Your task to perform on an android device: delete the emails in spam in the gmail app Image 0: 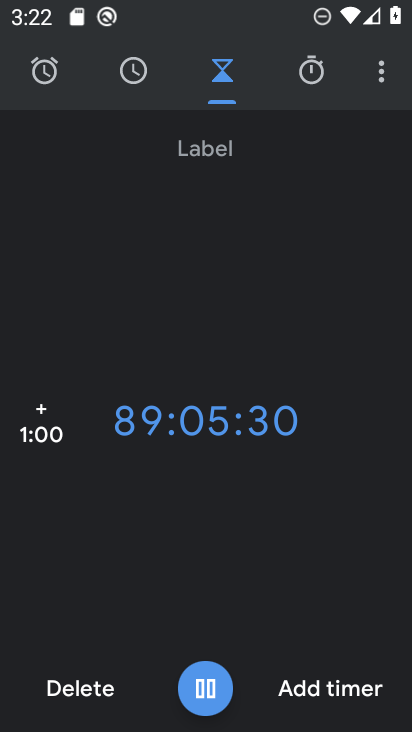
Step 0: press home button
Your task to perform on an android device: delete the emails in spam in the gmail app Image 1: 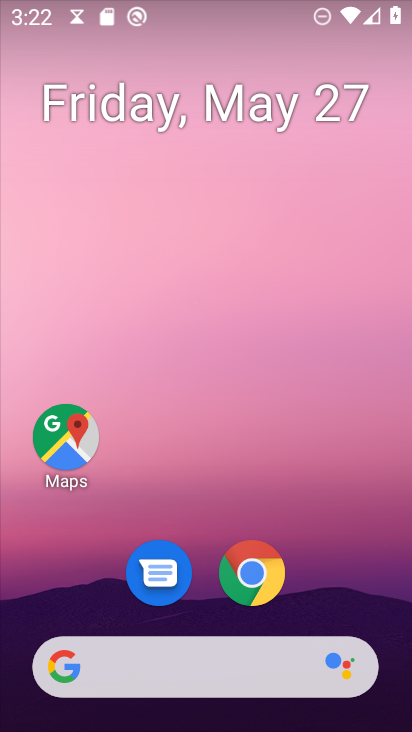
Step 1: drag from (279, 165) to (280, 66)
Your task to perform on an android device: delete the emails in spam in the gmail app Image 2: 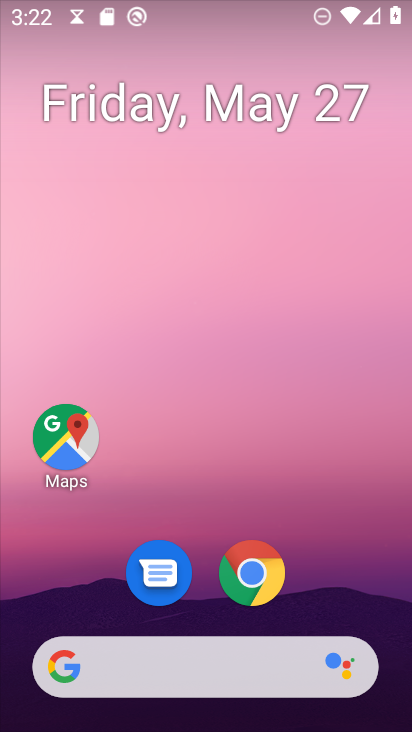
Step 2: drag from (325, 597) to (307, 0)
Your task to perform on an android device: delete the emails in spam in the gmail app Image 3: 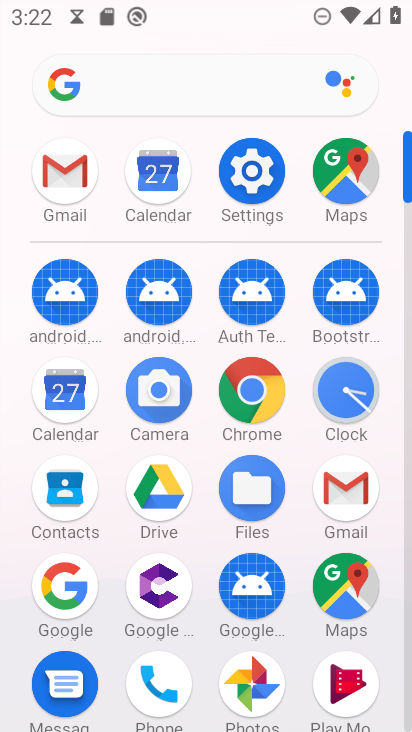
Step 3: click (77, 177)
Your task to perform on an android device: delete the emails in spam in the gmail app Image 4: 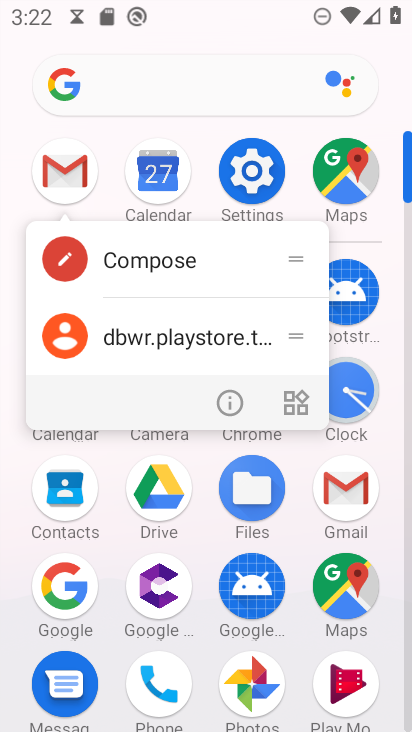
Step 4: click (60, 168)
Your task to perform on an android device: delete the emails in spam in the gmail app Image 5: 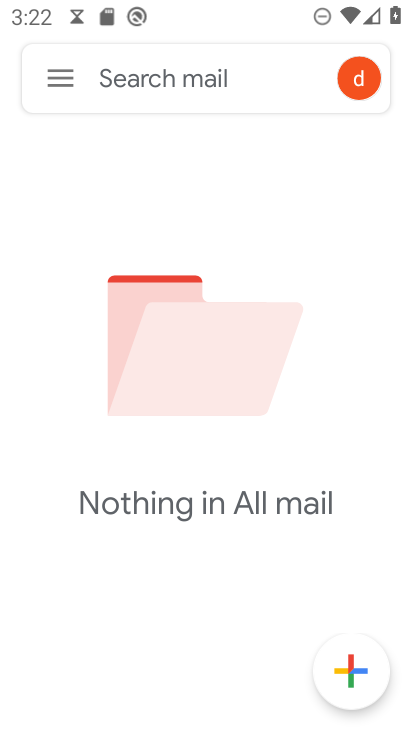
Step 5: click (55, 88)
Your task to perform on an android device: delete the emails in spam in the gmail app Image 6: 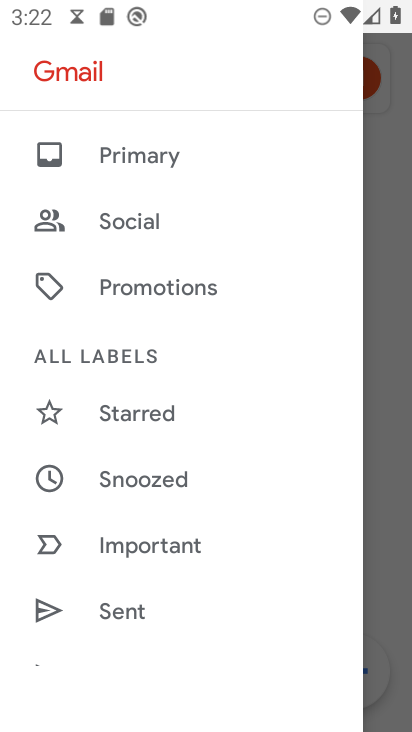
Step 6: drag from (196, 555) to (187, 346)
Your task to perform on an android device: delete the emails in spam in the gmail app Image 7: 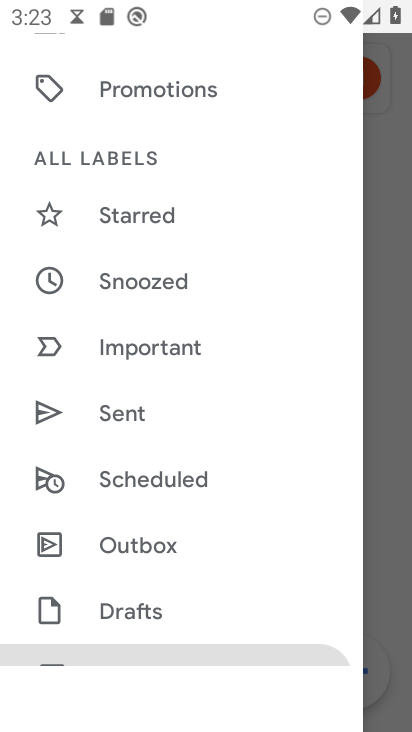
Step 7: drag from (172, 570) to (172, 208)
Your task to perform on an android device: delete the emails in spam in the gmail app Image 8: 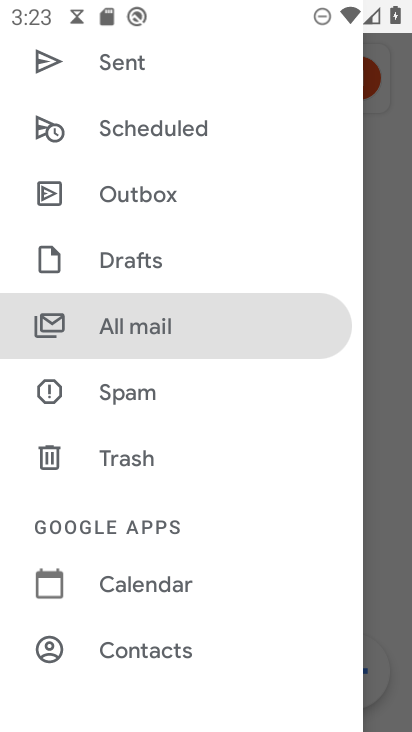
Step 8: click (154, 385)
Your task to perform on an android device: delete the emails in spam in the gmail app Image 9: 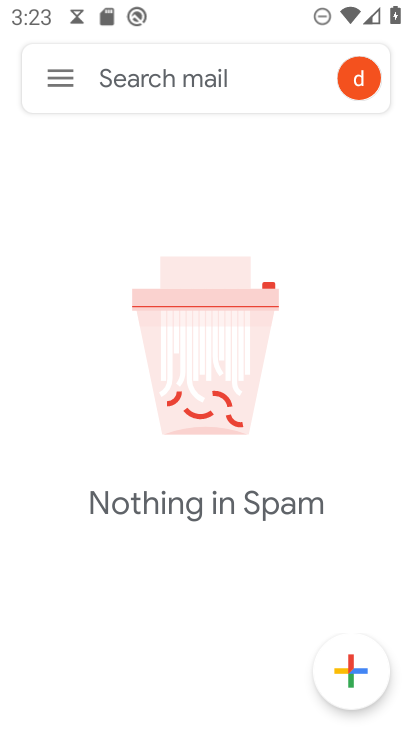
Step 9: task complete